Your task to perform on an android device: Open Google Chrome and click the shortcut for Amazon.com Image 0: 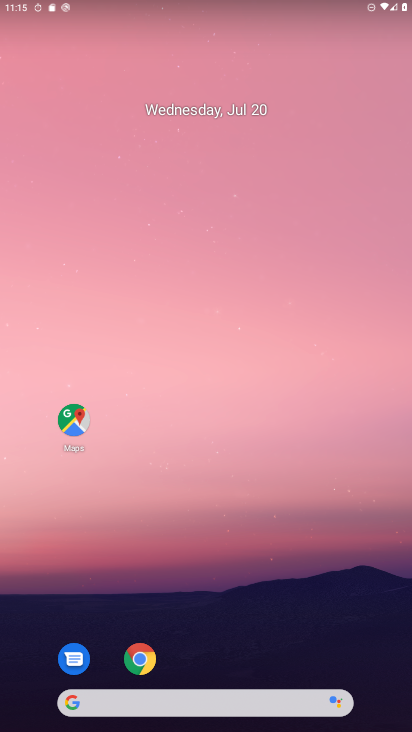
Step 0: drag from (311, 576) to (261, 60)
Your task to perform on an android device: Open Google Chrome and click the shortcut for Amazon.com Image 1: 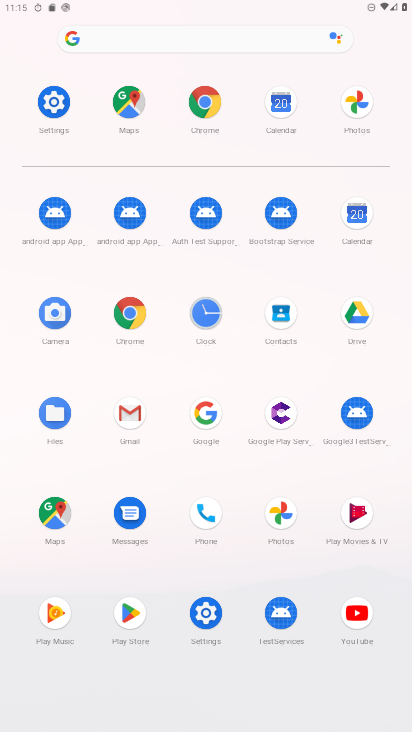
Step 1: click (130, 315)
Your task to perform on an android device: Open Google Chrome and click the shortcut for Amazon.com Image 2: 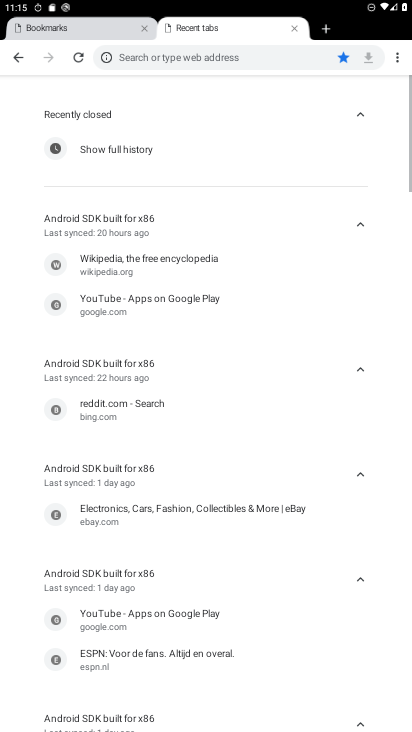
Step 2: click (327, 29)
Your task to perform on an android device: Open Google Chrome and click the shortcut for Amazon.com Image 3: 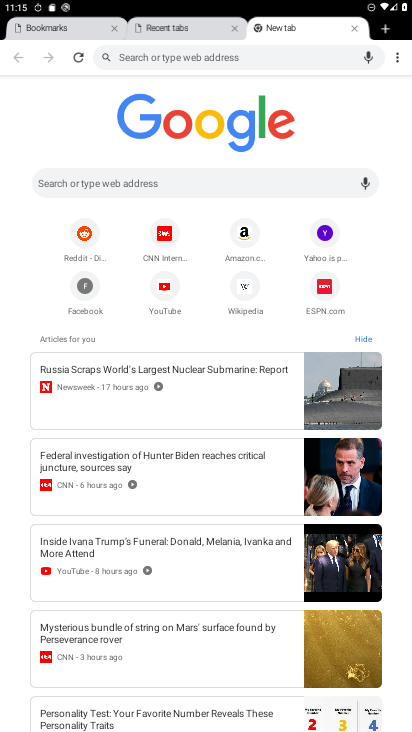
Step 3: click (251, 240)
Your task to perform on an android device: Open Google Chrome and click the shortcut for Amazon.com Image 4: 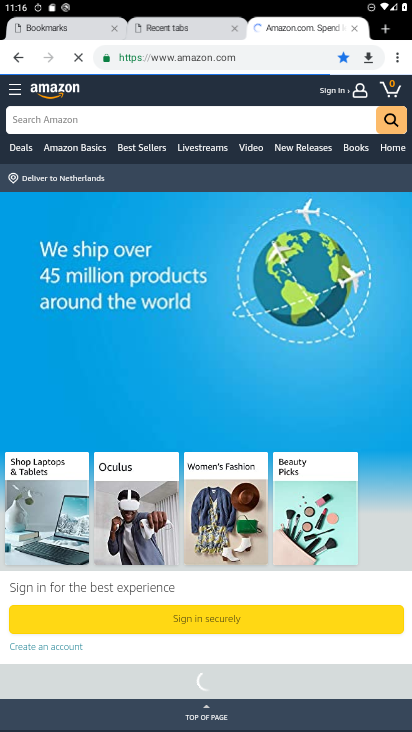
Step 4: task complete